Your task to perform on an android device: change text size in settings app Image 0: 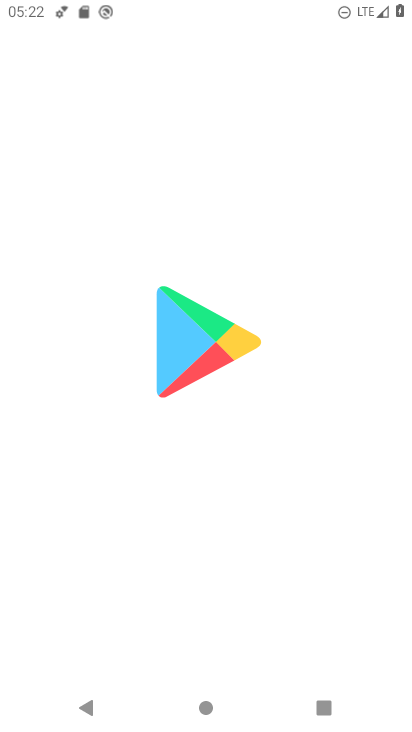
Step 0: drag from (318, 581) to (354, 20)
Your task to perform on an android device: change text size in settings app Image 1: 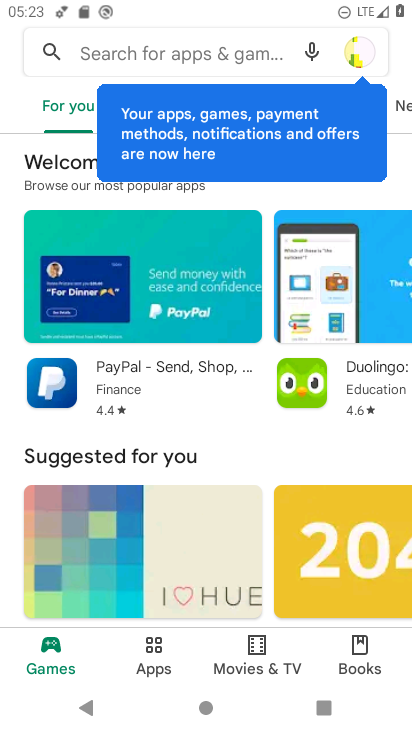
Step 1: press home button
Your task to perform on an android device: change text size in settings app Image 2: 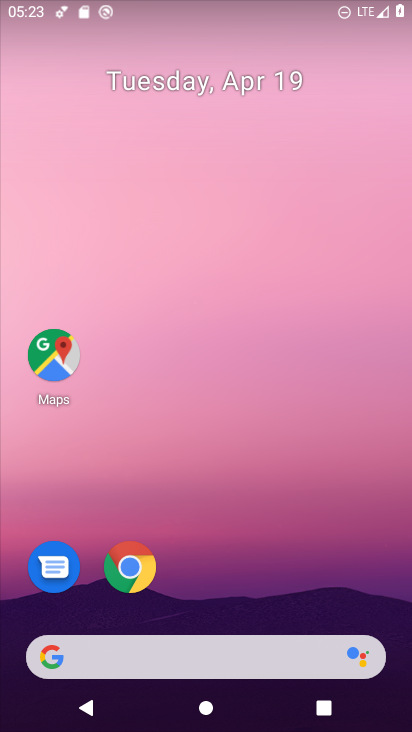
Step 2: drag from (293, 651) to (309, 90)
Your task to perform on an android device: change text size in settings app Image 3: 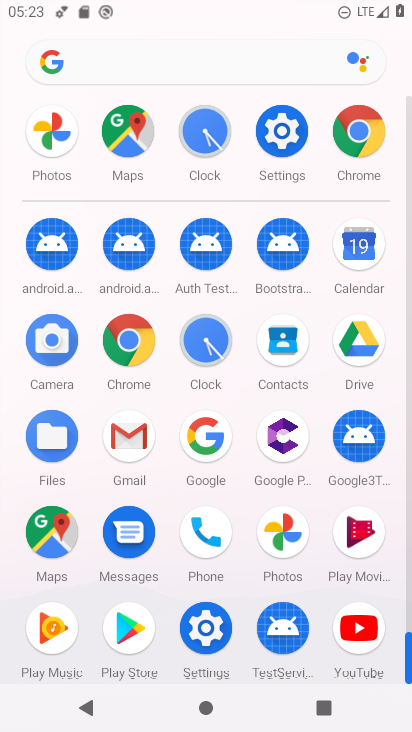
Step 3: click (199, 637)
Your task to perform on an android device: change text size in settings app Image 4: 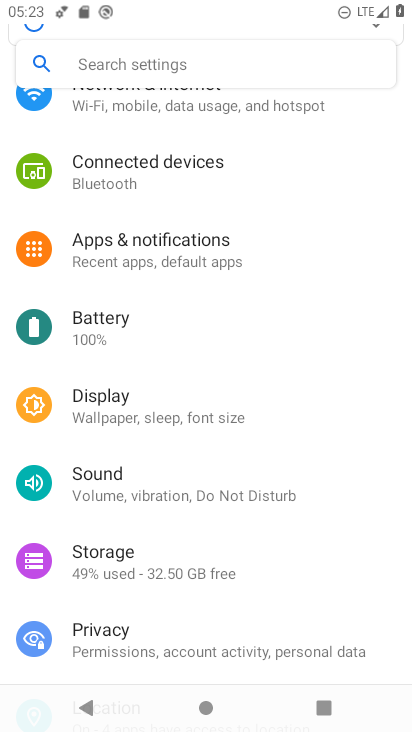
Step 4: drag from (199, 630) to (237, 195)
Your task to perform on an android device: change text size in settings app Image 5: 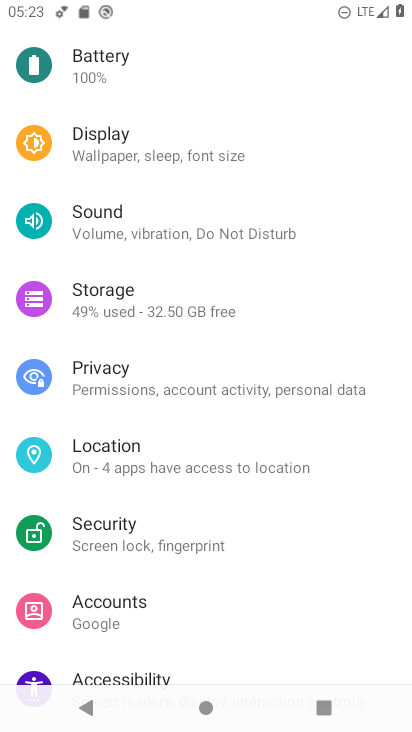
Step 5: drag from (170, 668) to (186, 249)
Your task to perform on an android device: change text size in settings app Image 6: 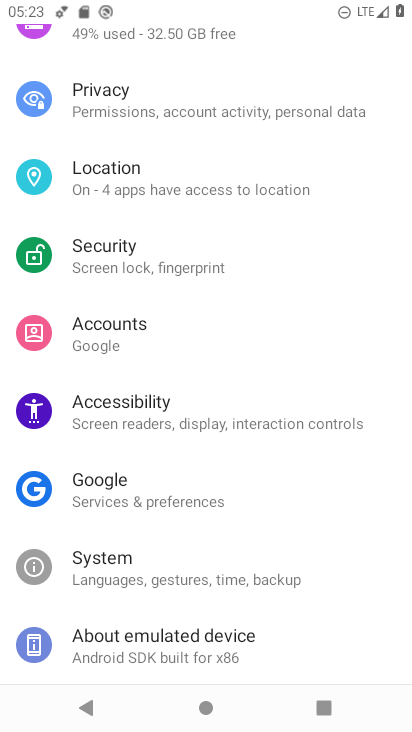
Step 6: click (309, 426)
Your task to perform on an android device: change text size in settings app Image 7: 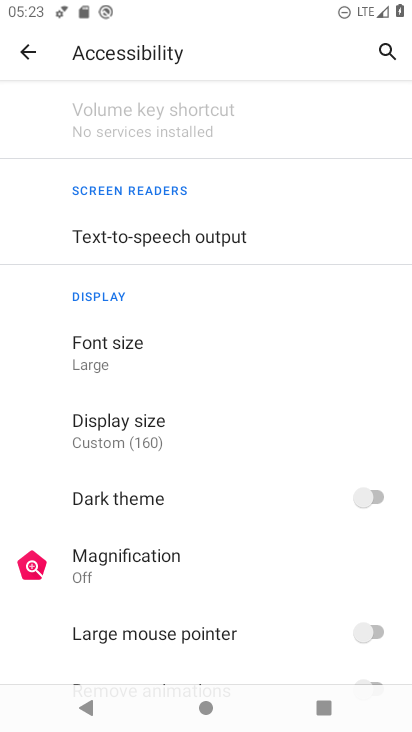
Step 7: drag from (269, 613) to (275, 135)
Your task to perform on an android device: change text size in settings app Image 8: 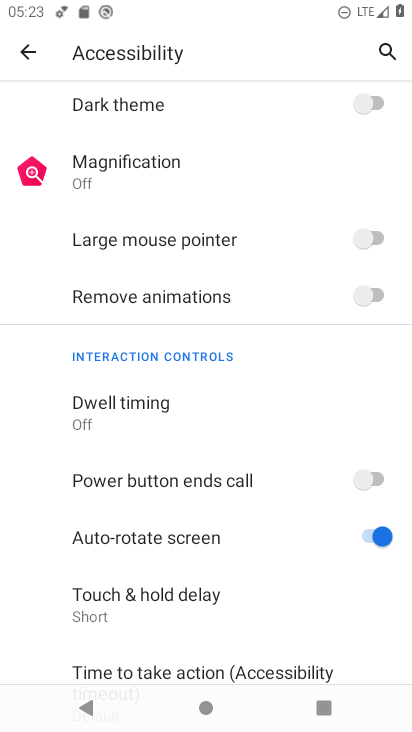
Step 8: drag from (230, 286) to (251, 697)
Your task to perform on an android device: change text size in settings app Image 9: 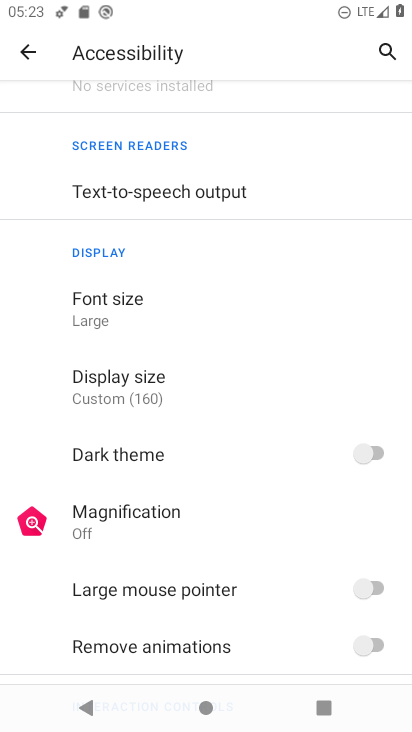
Step 9: click (148, 320)
Your task to perform on an android device: change text size in settings app Image 10: 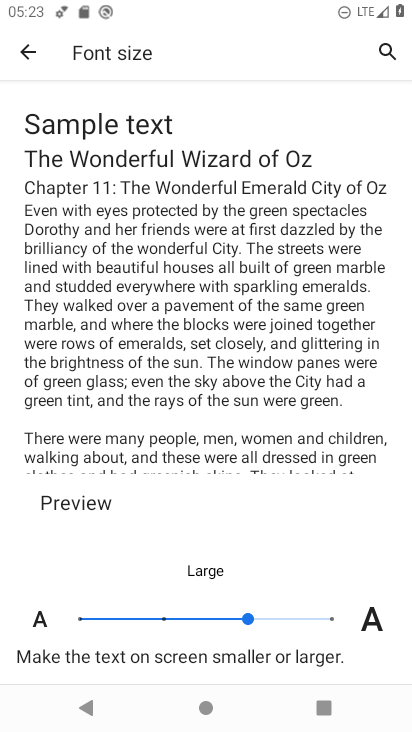
Step 10: click (163, 619)
Your task to perform on an android device: change text size in settings app Image 11: 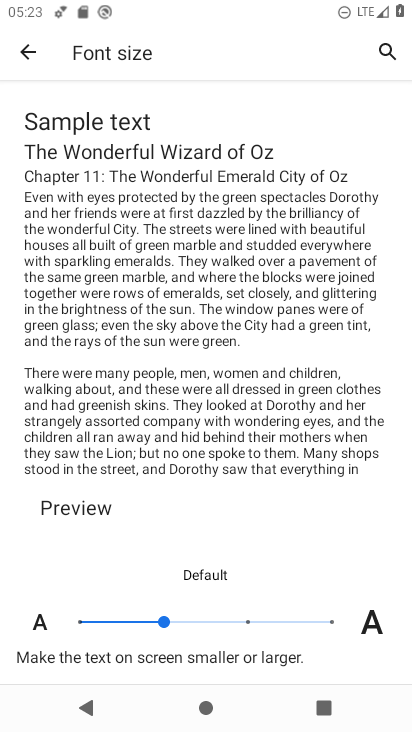
Step 11: task complete